Your task to perform on an android device: empty trash in the gmail app Image 0: 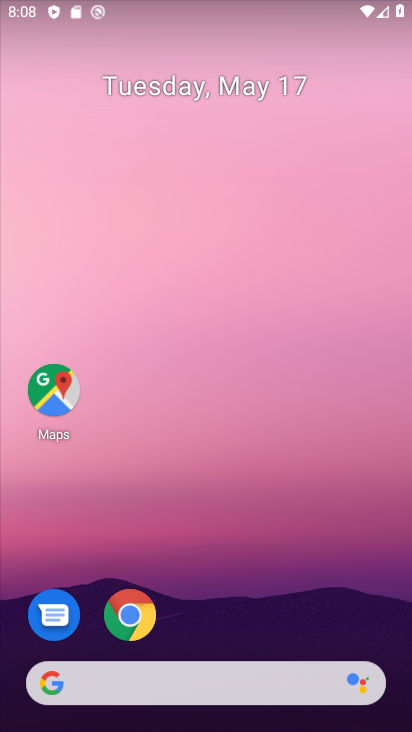
Step 0: drag from (389, 638) to (348, 148)
Your task to perform on an android device: empty trash in the gmail app Image 1: 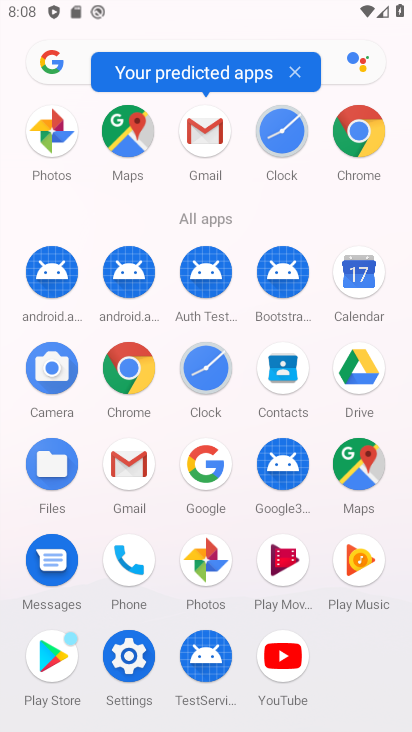
Step 1: click (129, 460)
Your task to perform on an android device: empty trash in the gmail app Image 2: 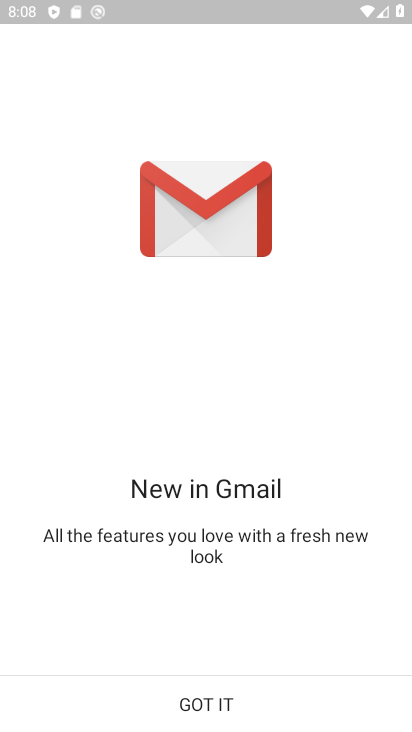
Step 2: click (200, 710)
Your task to perform on an android device: empty trash in the gmail app Image 3: 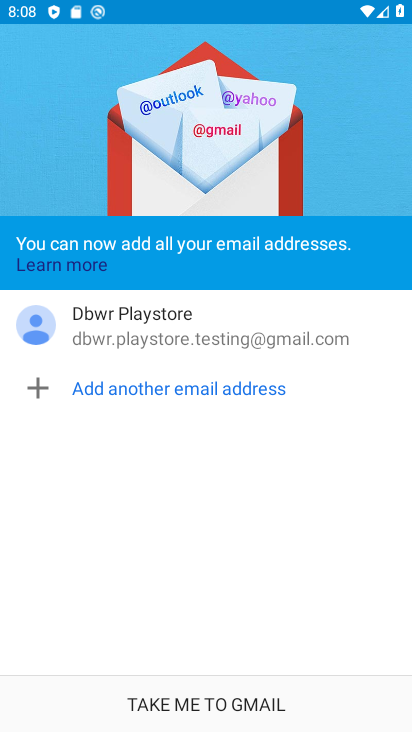
Step 3: click (200, 710)
Your task to perform on an android device: empty trash in the gmail app Image 4: 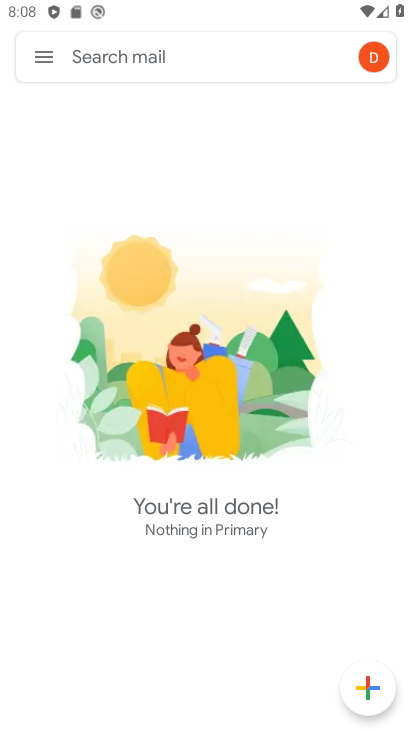
Step 4: click (43, 54)
Your task to perform on an android device: empty trash in the gmail app Image 5: 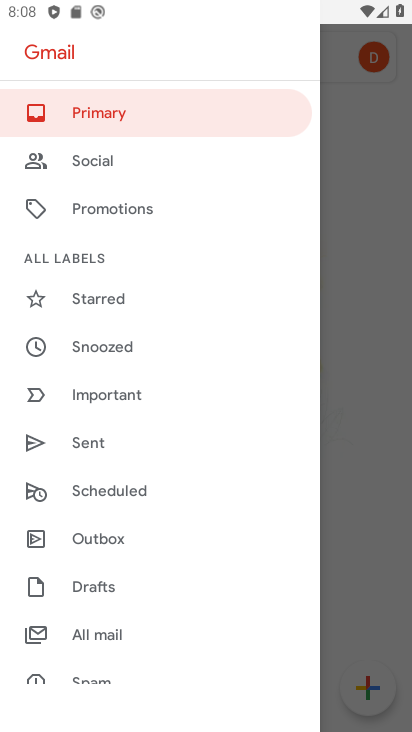
Step 5: drag from (182, 585) to (199, 300)
Your task to perform on an android device: empty trash in the gmail app Image 6: 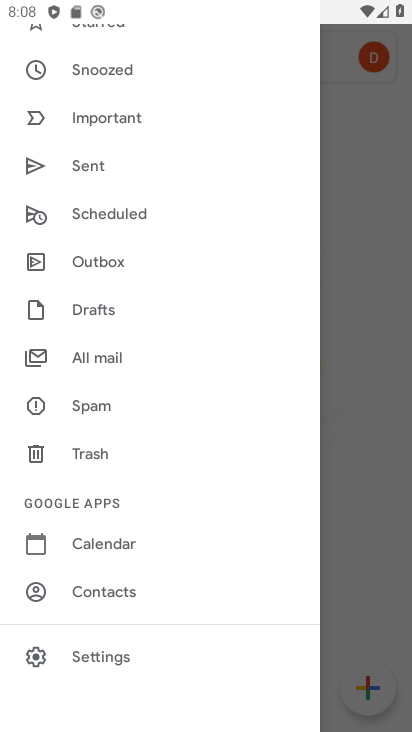
Step 6: click (84, 449)
Your task to perform on an android device: empty trash in the gmail app Image 7: 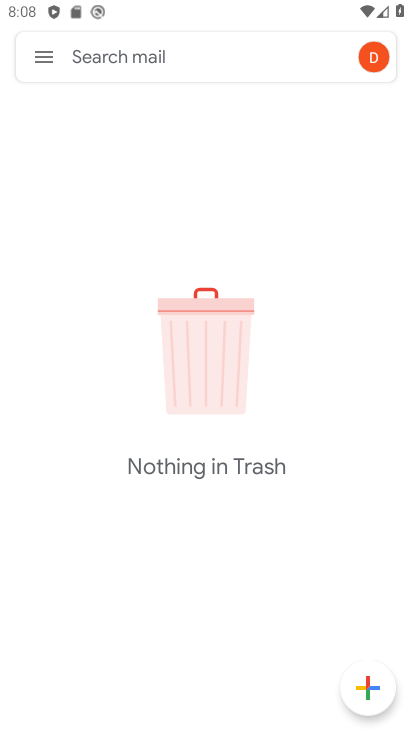
Step 7: task complete